Your task to perform on an android device: Go to CNN.com Image 0: 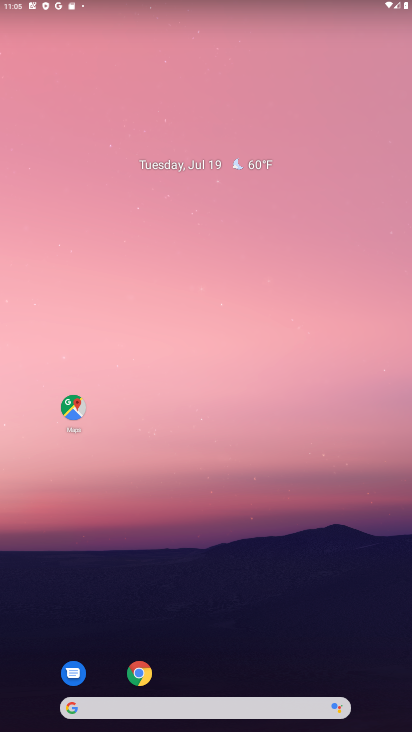
Step 0: click (138, 672)
Your task to perform on an android device: Go to CNN.com Image 1: 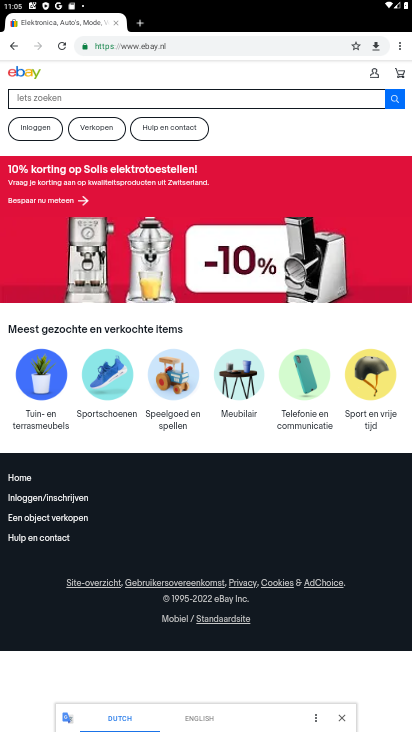
Step 1: click (202, 44)
Your task to perform on an android device: Go to CNN.com Image 2: 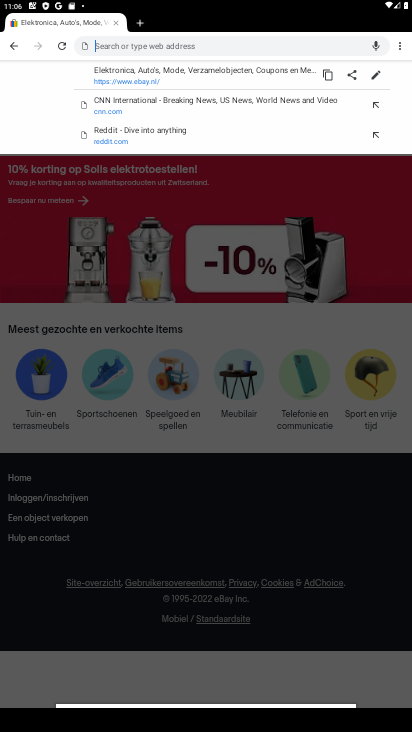
Step 2: type "CNN.com"
Your task to perform on an android device: Go to CNN.com Image 3: 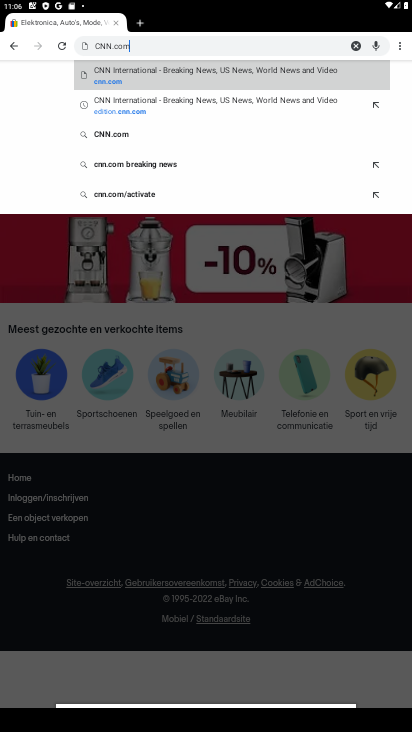
Step 3: click (113, 66)
Your task to perform on an android device: Go to CNN.com Image 4: 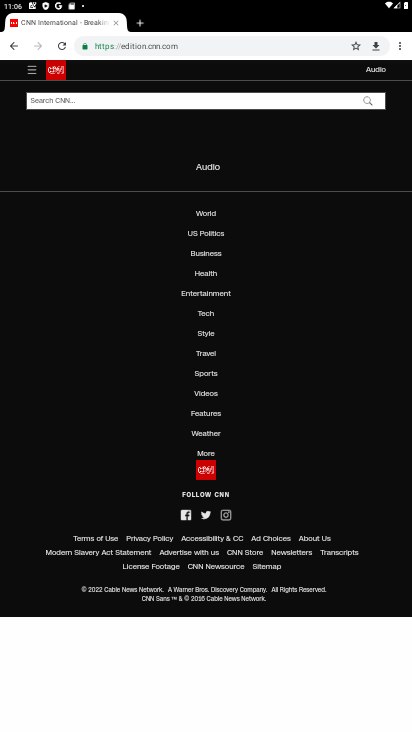
Step 4: task complete